Your task to perform on an android device: change the clock display to digital Image 0: 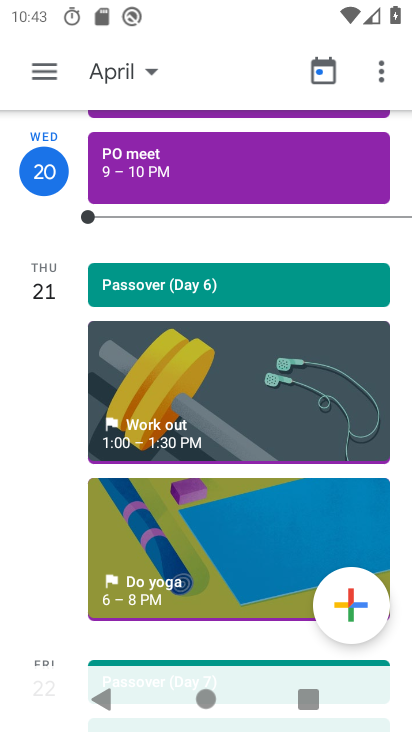
Step 0: press home button
Your task to perform on an android device: change the clock display to digital Image 1: 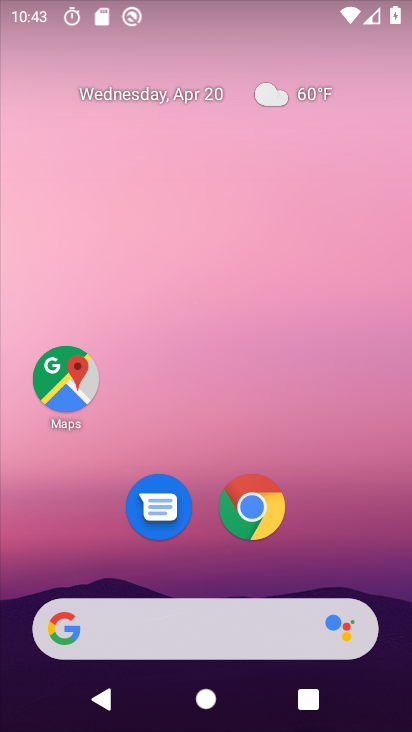
Step 1: drag from (202, 567) to (254, 162)
Your task to perform on an android device: change the clock display to digital Image 2: 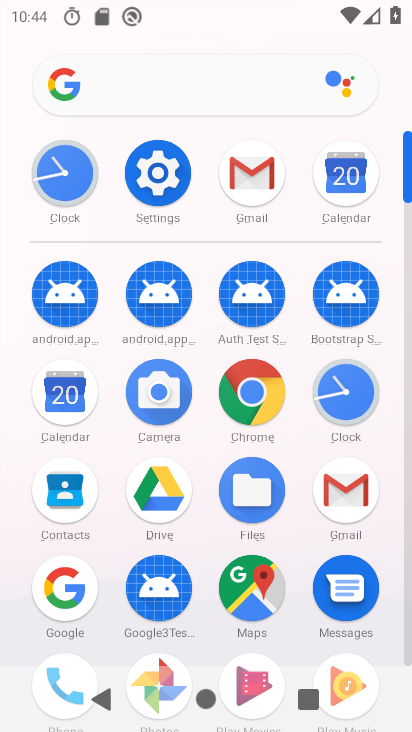
Step 2: click (71, 187)
Your task to perform on an android device: change the clock display to digital Image 3: 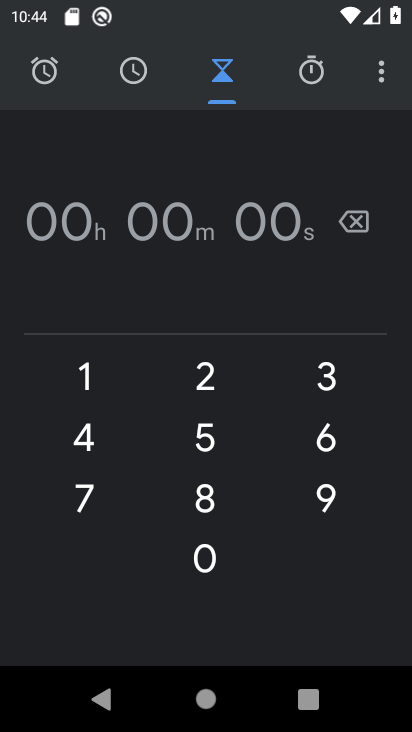
Step 3: click (380, 77)
Your task to perform on an android device: change the clock display to digital Image 4: 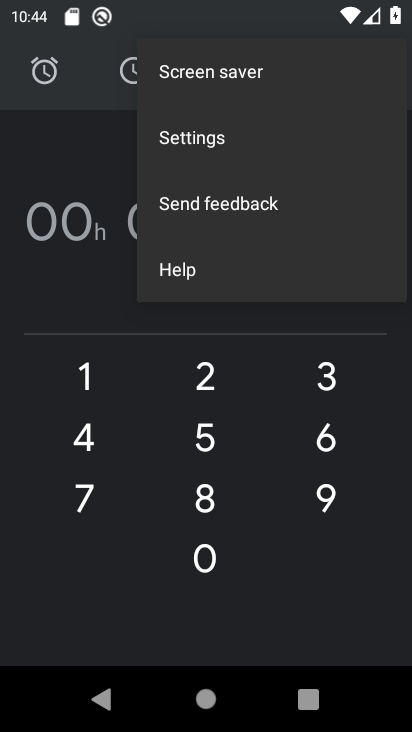
Step 4: click (180, 134)
Your task to perform on an android device: change the clock display to digital Image 5: 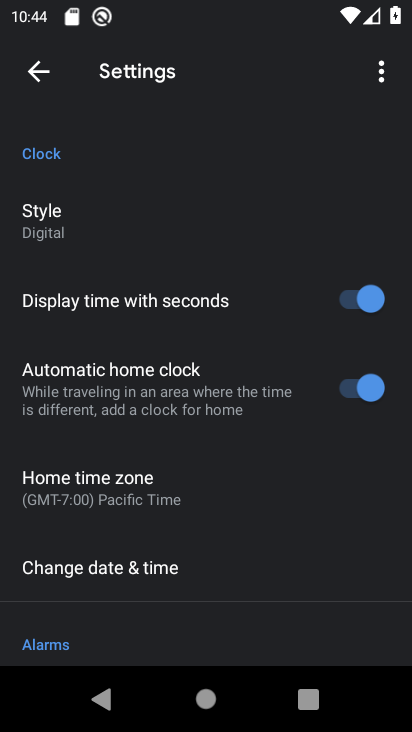
Step 5: click (61, 225)
Your task to perform on an android device: change the clock display to digital Image 6: 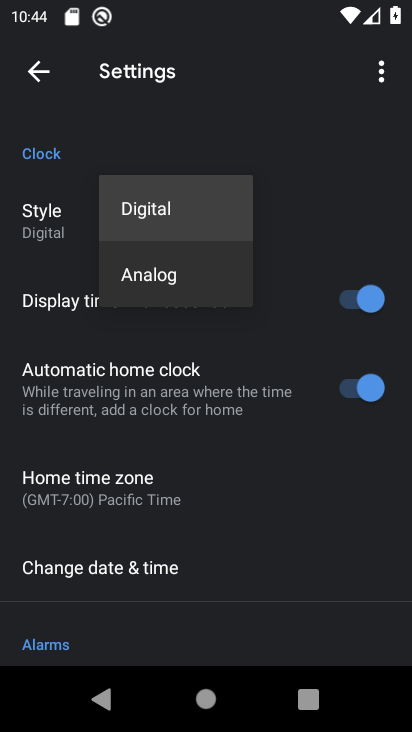
Step 6: task complete